Your task to perform on an android device: Do I have any events tomorrow? Image 0: 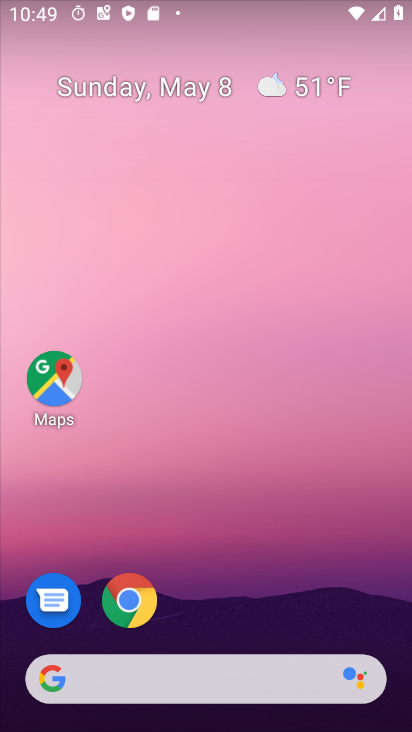
Step 0: drag from (217, 564) to (175, 4)
Your task to perform on an android device: Do I have any events tomorrow? Image 1: 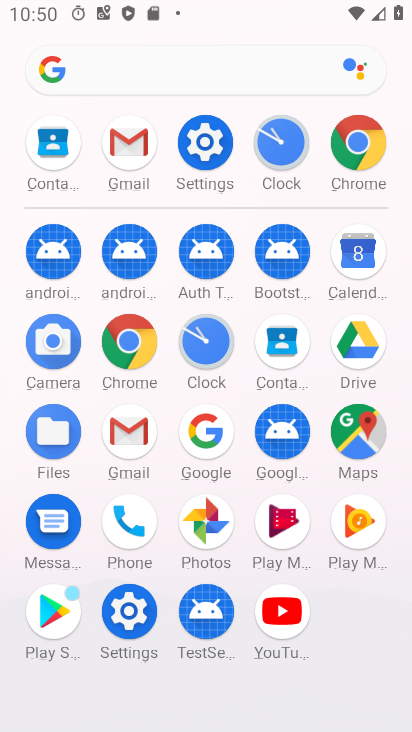
Step 1: click (357, 249)
Your task to perform on an android device: Do I have any events tomorrow? Image 2: 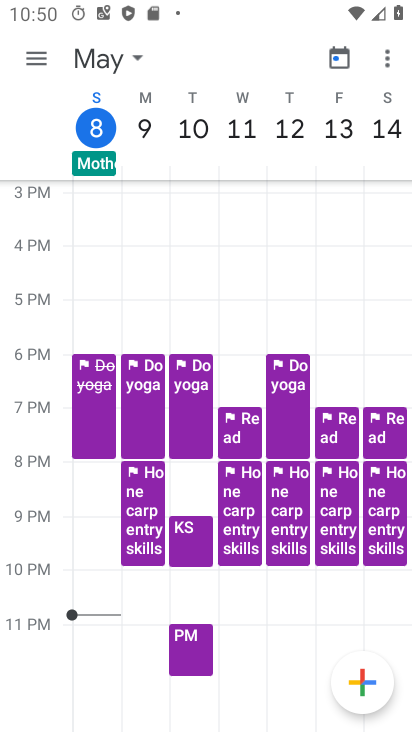
Step 2: click (141, 128)
Your task to perform on an android device: Do I have any events tomorrow? Image 3: 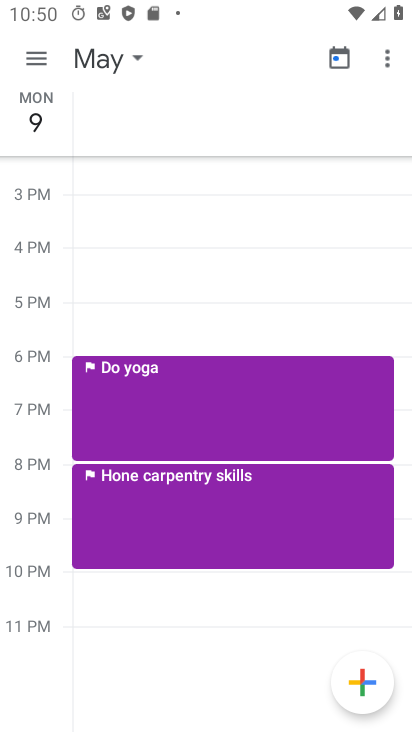
Step 3: task complete